Your task to perform on an android device: Go to Reddit.com Image 0: 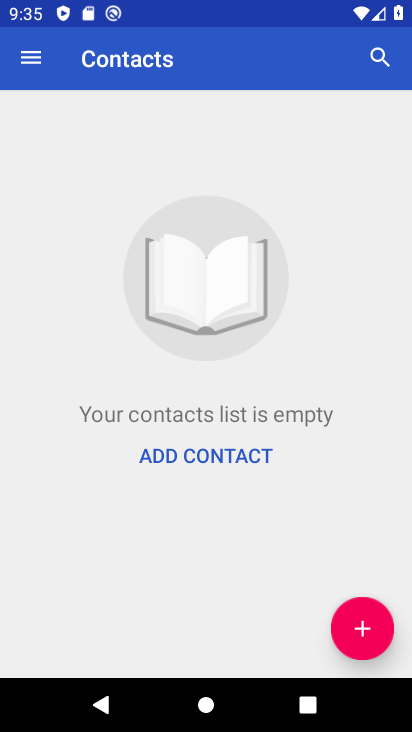
Step 0: press home button
Your task to perform on an android device: Go to Reddit.com Image 1: 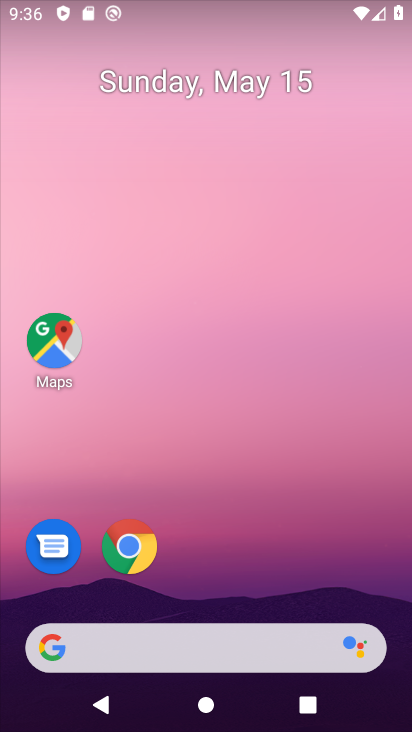
Step 1: click (119, 555)
Your task to perform on an android device: Go to Reddit.com Image 2: 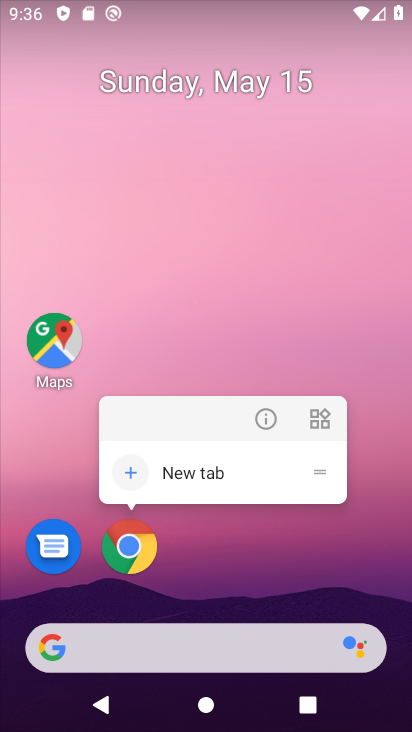
Step 2: click (131, 543)
Your task to perform on an android device: Go to Reddit.com Image 3: 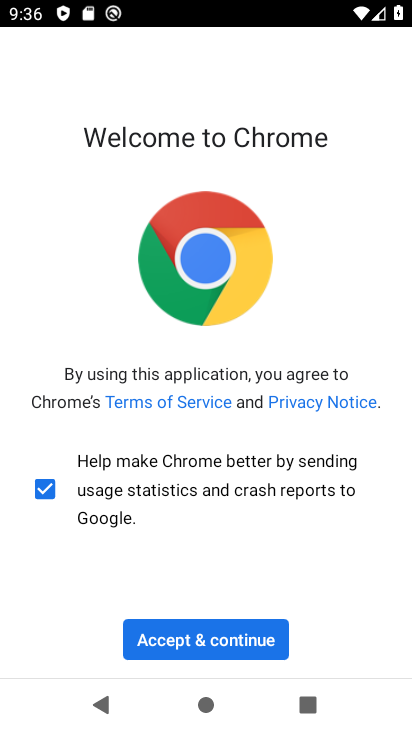
Step 3: click (196, 634)
Your task to perform on an android device: Go to Reddit.com Image 4: 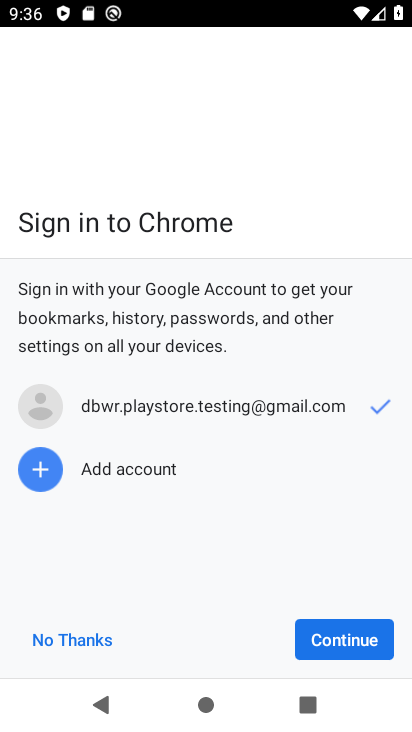
Step 4: click (307, 637)
Your task to perform on an android device: Go to Reddit.com Image 5: 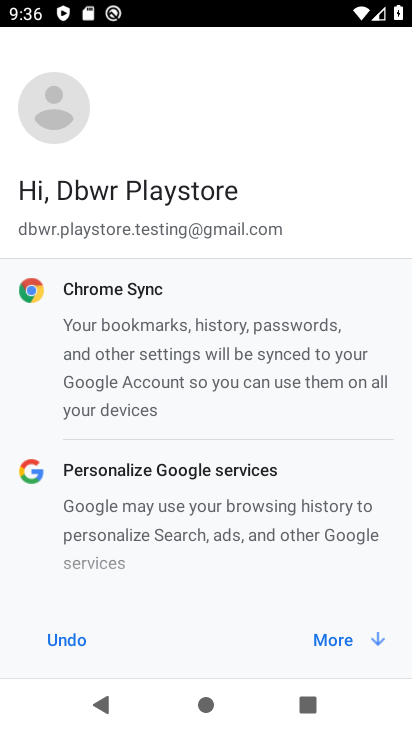
Step 5: click (363, 637)
Your task to perform on an android device: Go to Reddit.com Image 6: 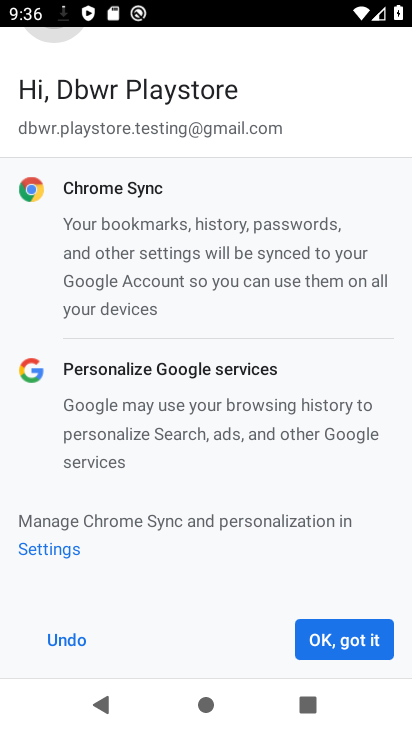
Step 6: click (362, 627)
Your task to perform on an android device: Go to Reddit.com Image 7: 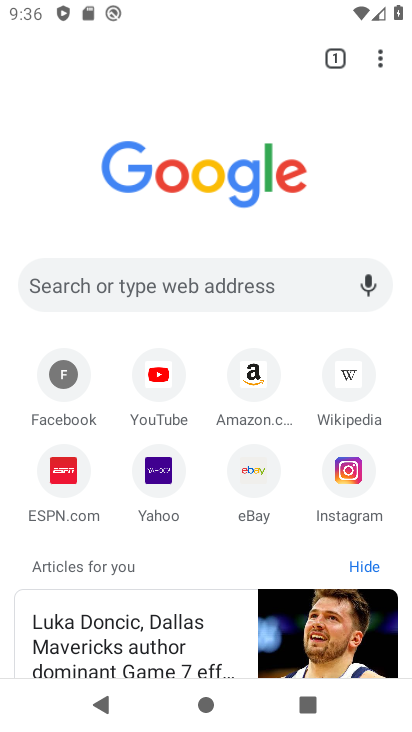
Step 7: click (182, 285)
Your task to perform on an android device: Go to Reddit.com Image 8: 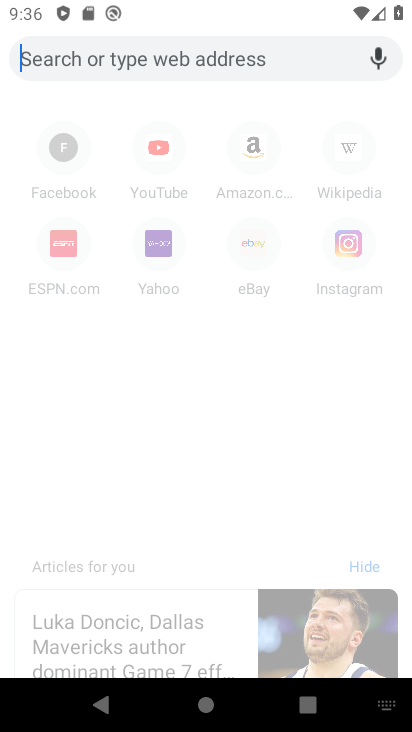
Step 8: type "reddit.com"
Your task to perform on an android device: Go to Reddit.com Image 9: 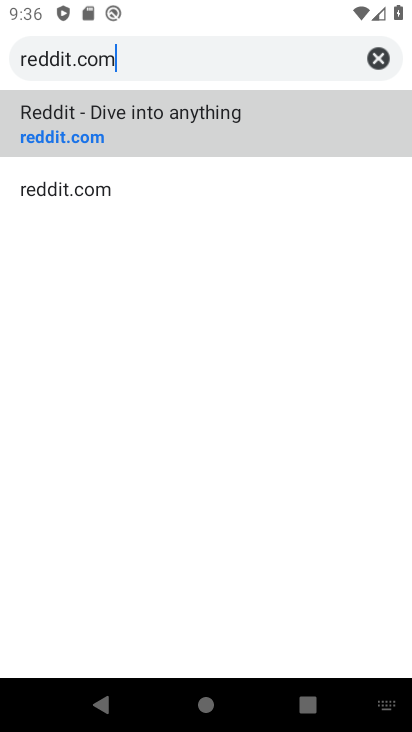
Step 9: click (49, 128)
Your task to perform on an android device: Go to Reddit.com Image 10: 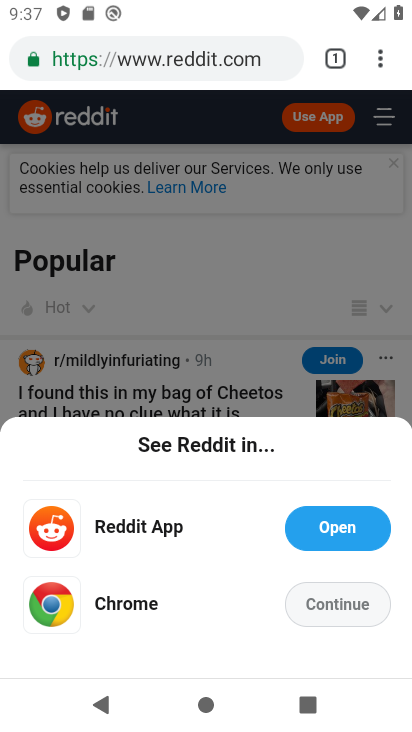
Step 10: task complete